Your task to perform on an android device: Go to Android settings Image 0: 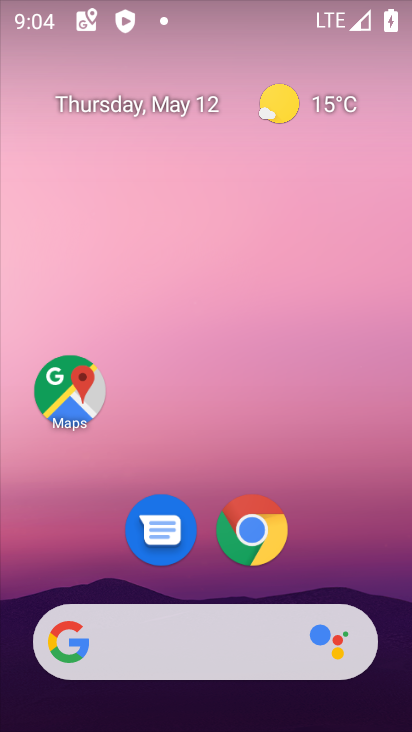
Step 0: drag from (225, 709) to (184, 52)
Your task to perform on an android device: Go to Android settings Image 1: 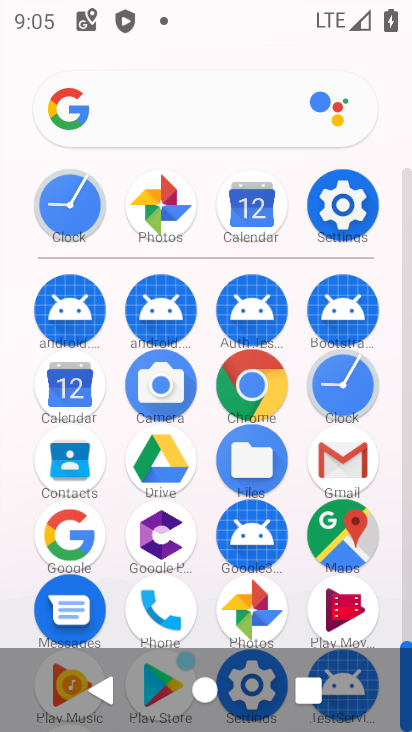
Step 1: click (354, 206)
Your task to perform on an android device: Go to Android settings Image 2: 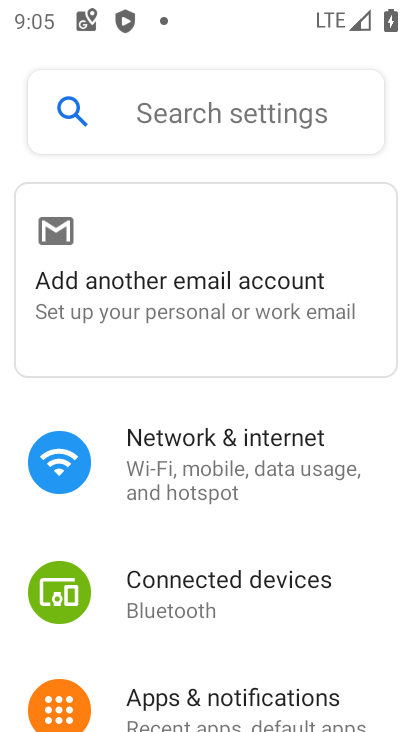
Step 2: drag from (274, 653) to (206, 169)
Your task to perform on an android device: Go to Android settings Image 3: 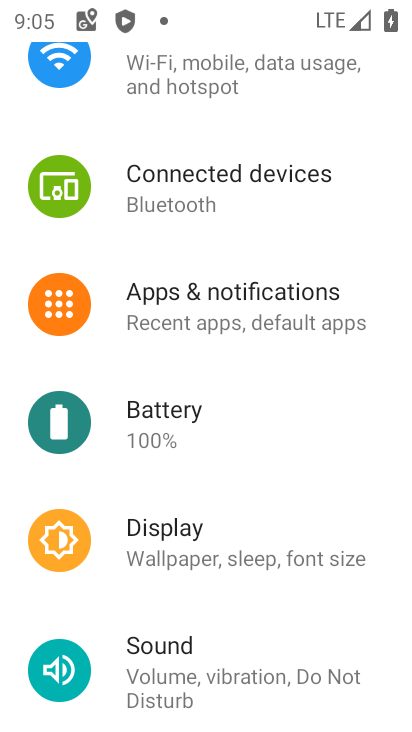
Step 3: drag from (273, 690) to (231, 183)
Your task to perform on an android device: Go to Android settings Image 4: 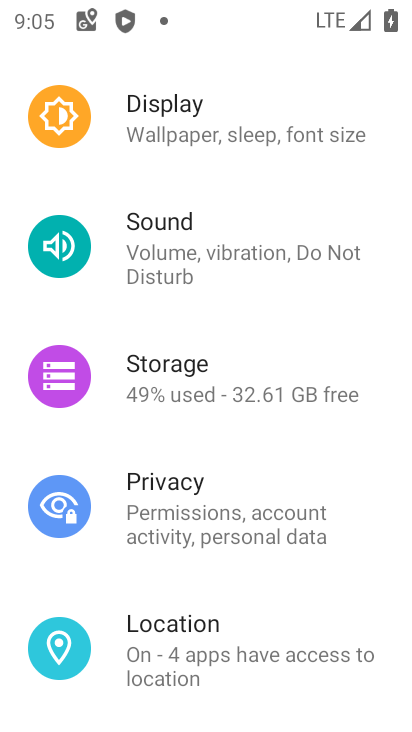
Step 4: drag from (235, 725) to (229, 313)
Your task to perform on an android device: Go to Android settings Image 5: 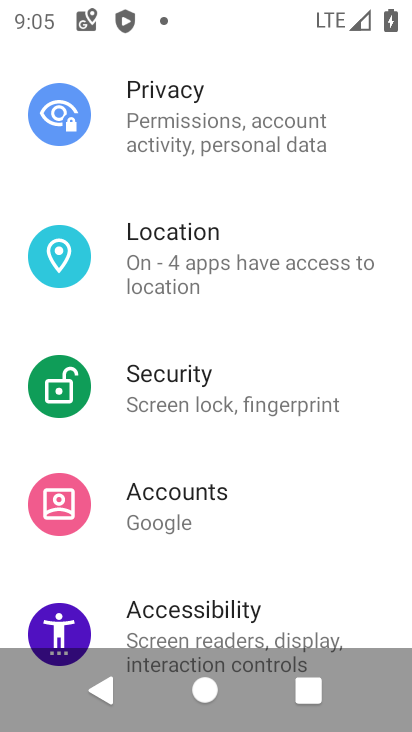
Step 5: drag from (243, 571) to (81, 11)
Your task to perform on an android device: Go to Android settings Image 6: 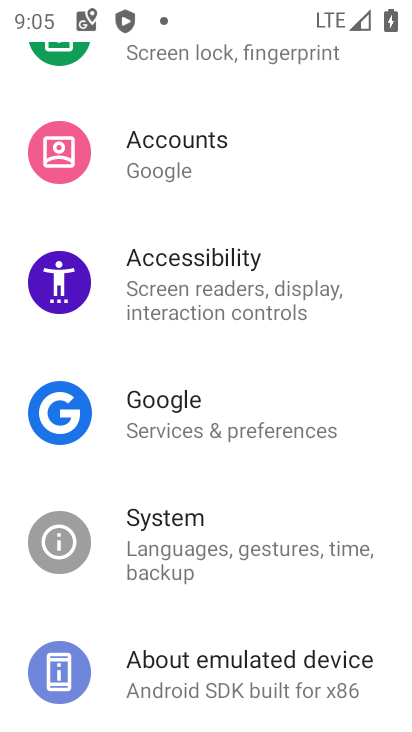
Step 6: click (251, 674)
Your task to perform on an android device: Go to Android settings Image 7: 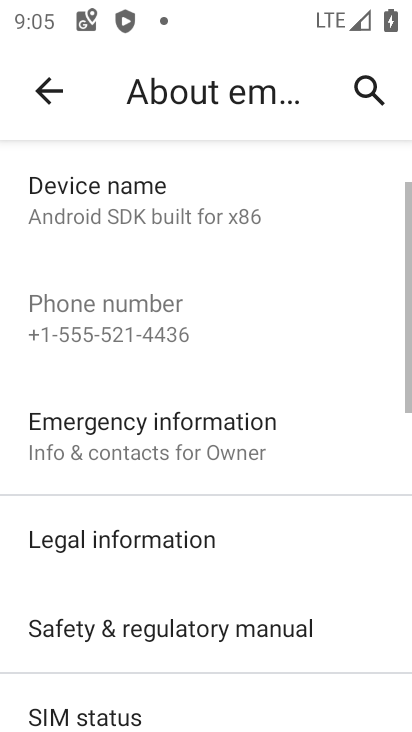
Step 7: task complete